Your task to perform on an android device: Search for Italian restaurants on Maps Image 0: 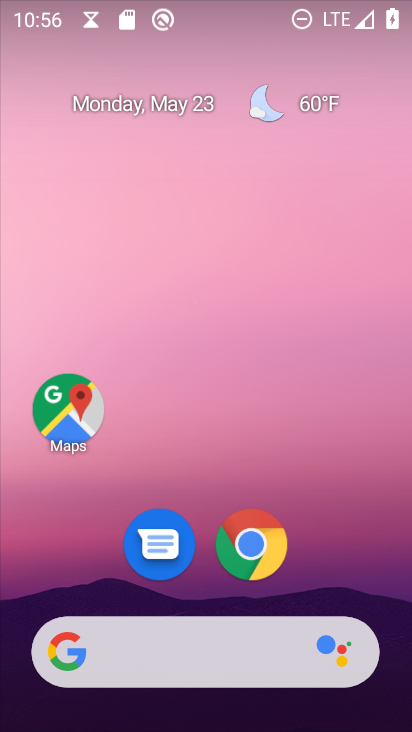
Step 0: click (80, 391)
Your task to perform on an android device: Search for Italian restaurants on Maps Image 1: 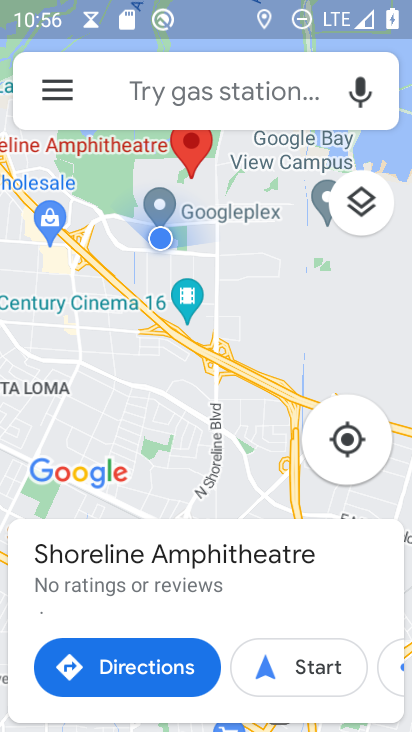
Step 1: click (154, 91)
Your task to perform on an android device: Search for Italian restaurants on Maps Image 2: 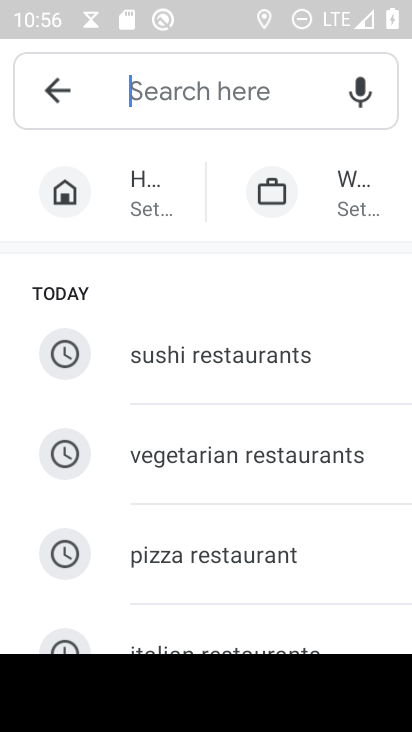
Step 2: click (177, 635)
Your task to perform on an android device: Search for Italian restaurants on Maps Image 3: 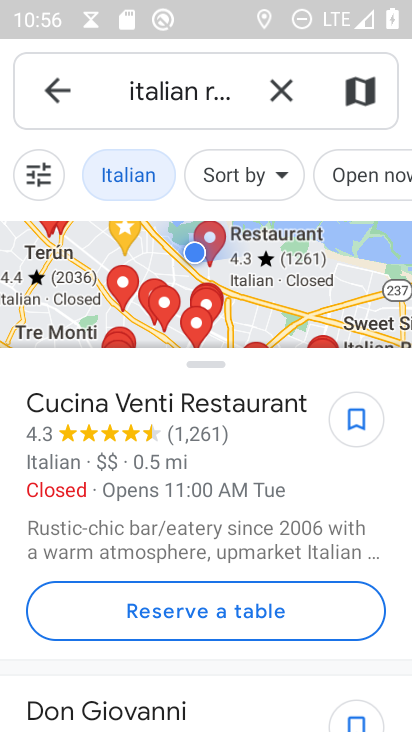
Step 3: task complete